Your task to perform on an android device: star an email in the gmail app Image 0: 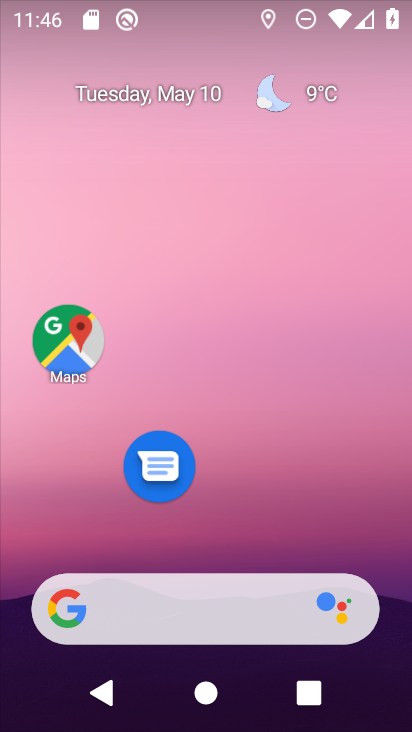
Step 0: drag from (262, 520) to (275, 58)
Your task to perform on an android device: star an email in the gmail app Image 1: 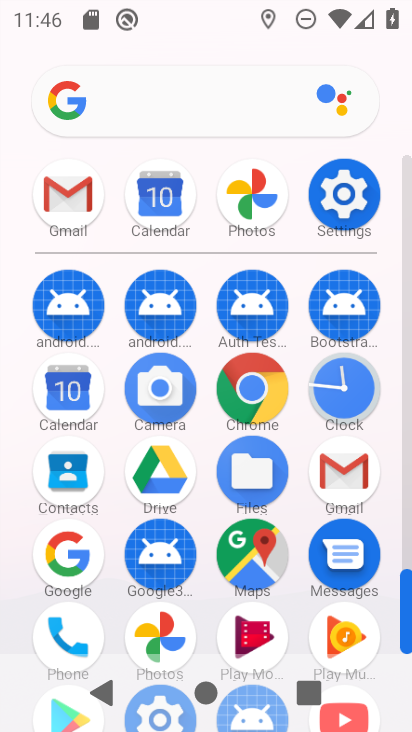
Step 1: click (343, 458)
Your task to perform on an android device: star an email in the gmail app Image 2: 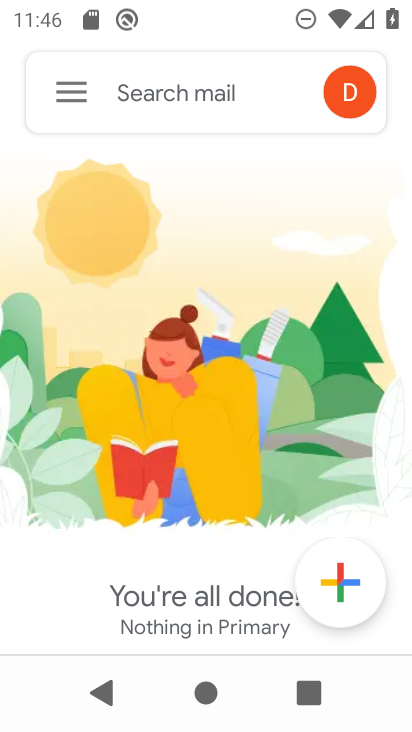
Step 2: click (81, 94)
Your task to perform on an android device: star an email in the gmail app Image 3: 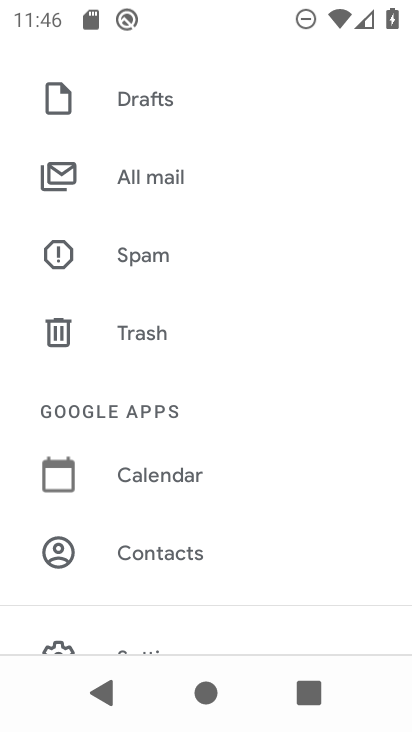
Step 3: drag from (258, 350) to (307, 459)
Your task to perform on an android device: star an email in the gmail app Image 4: 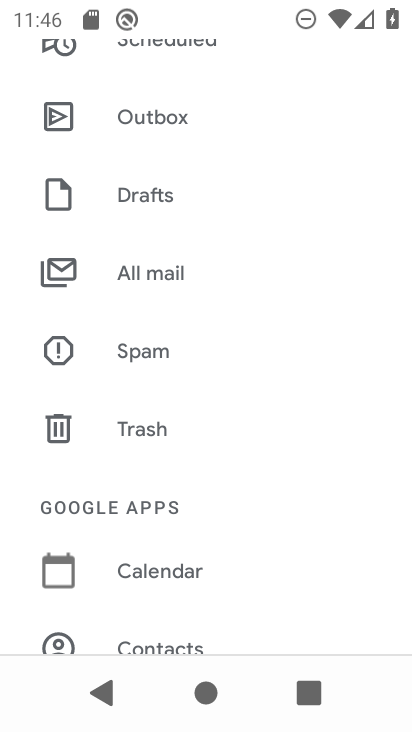
Step 4: click (131, 265)
Your task to perform on an android device: star an email in the gmail app Image 5: 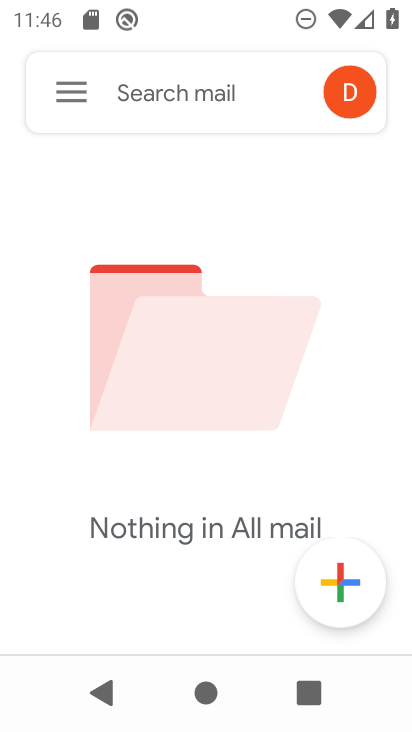
Step 5: task complete